Your task to perform on an android device: Show me recent news Image 0: 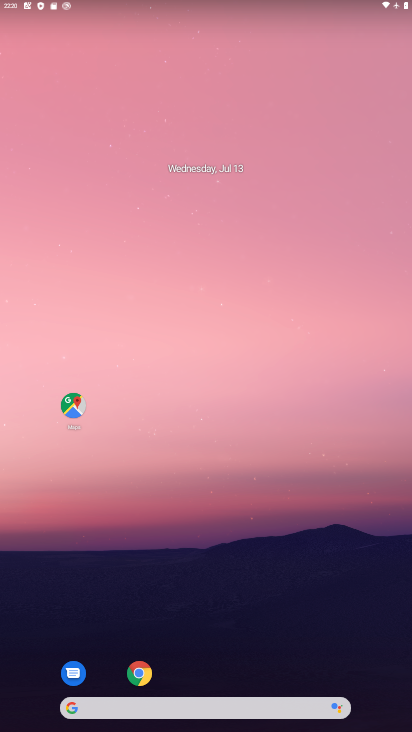
Step 0: drag from (223, 644) to (223, 103)
Your task to perform on an android device: Show me recent news Image 1: 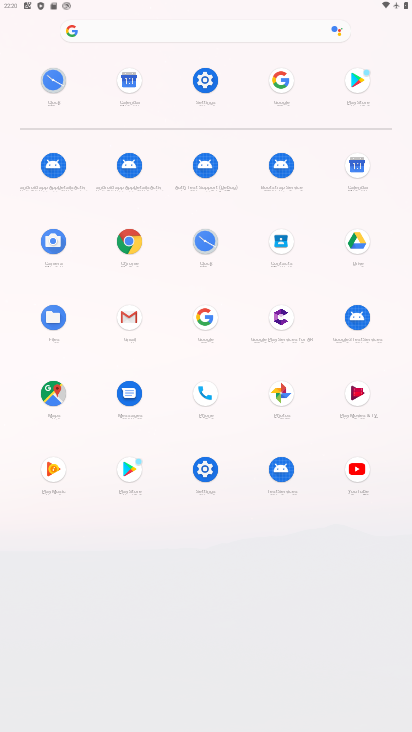
Step 1: click (287, 92)
Your task to perform on an android device: Show me recent news Image 2: 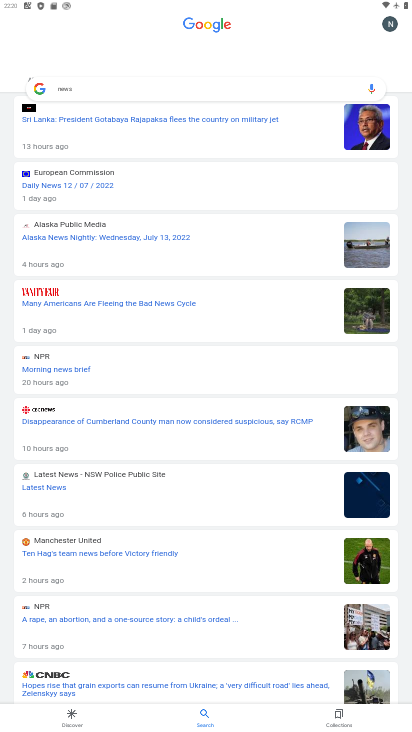
Step 2: click (140, 78)
Your task to perform on an android device: Show me recent news Image 3: 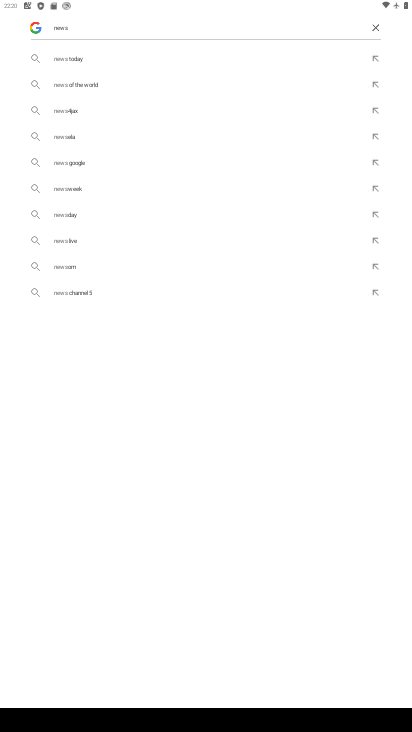
Step 3: click (370, 32)
Your task to perform on an android device: Show me recent news Image 4: 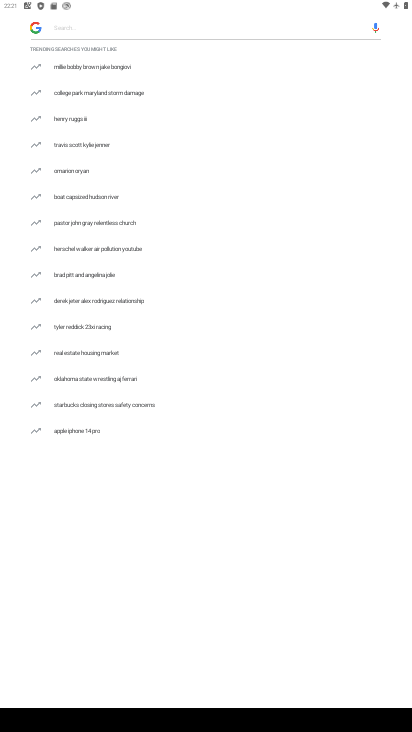
Step 4: type "news"
Your task to perform on an android device: Show me recent news Image 5: 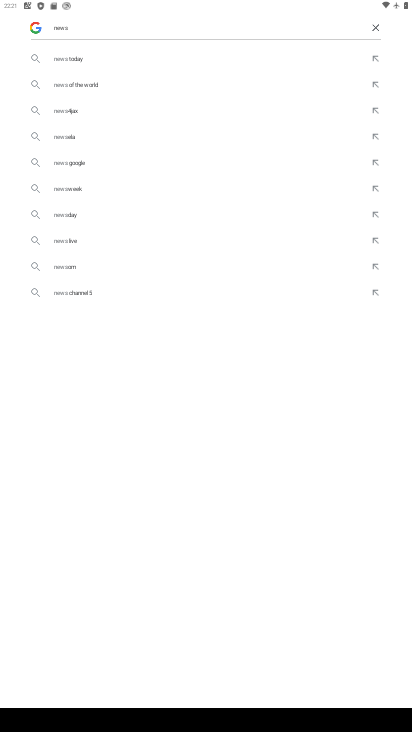
Step 5: click (66, 62)
Your task to perform on an android device: Show me recent news Image 6: 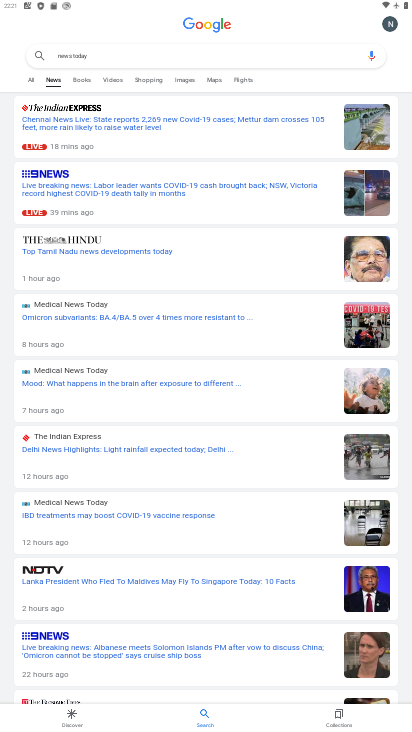
Step 6: task complete